Your task to perform on an android device: Open accessibility settings Image 0: 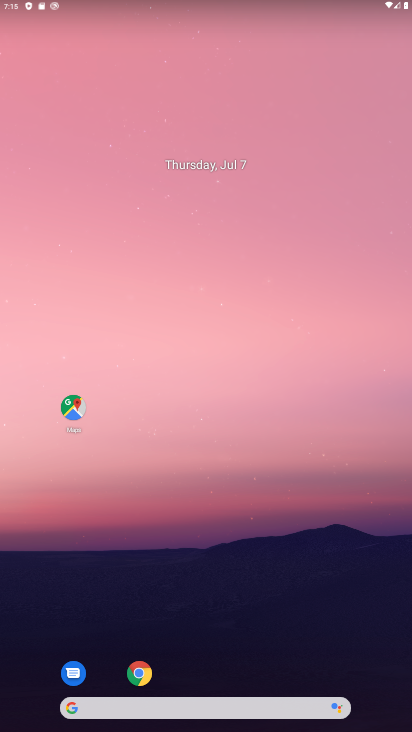
Step 0: drag from (230, 561) to (223, 54)
Your task to perform on an android device: Open accessibility settings Image 1: 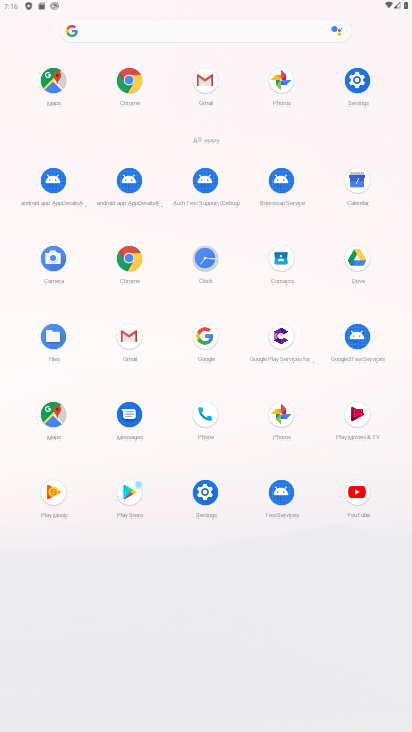
Step 1: click (357, 78)
Your task to perform on an android device: Open accessibility settings Image 2: 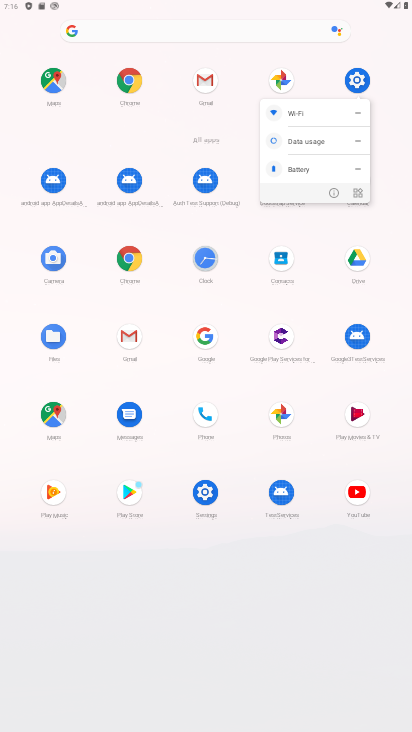
Step 2: click (357, 78)
Your task to perform on an android device: Open accessibility settings Image 3: 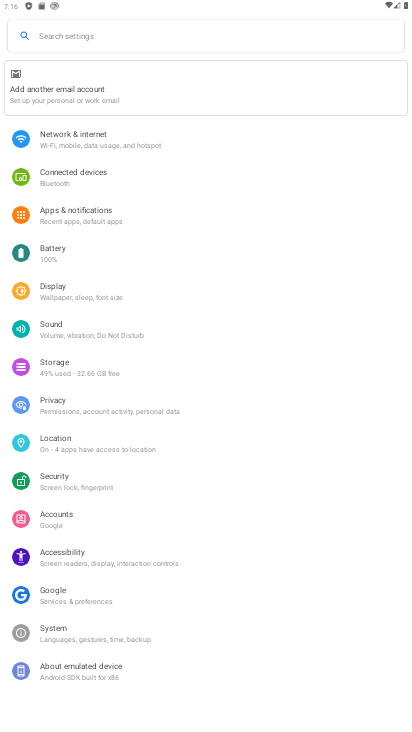
Step 3: click (96, 559)
Your task to perform on an android device: Open accessibility settings Image 4: 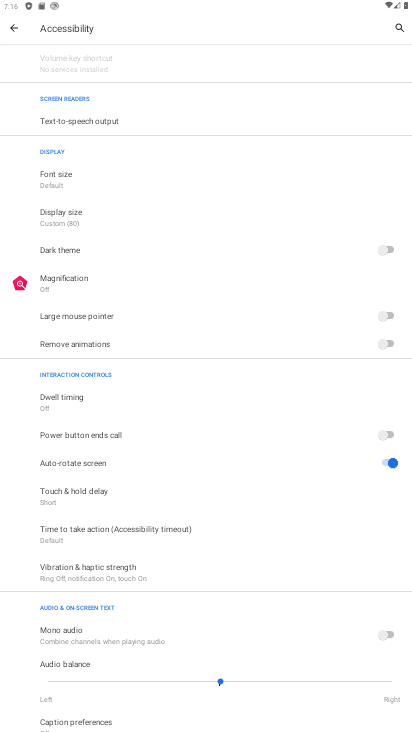
Step 4: task complete